Your task to perform on an android device: change your default location settings in chrome Image 0: 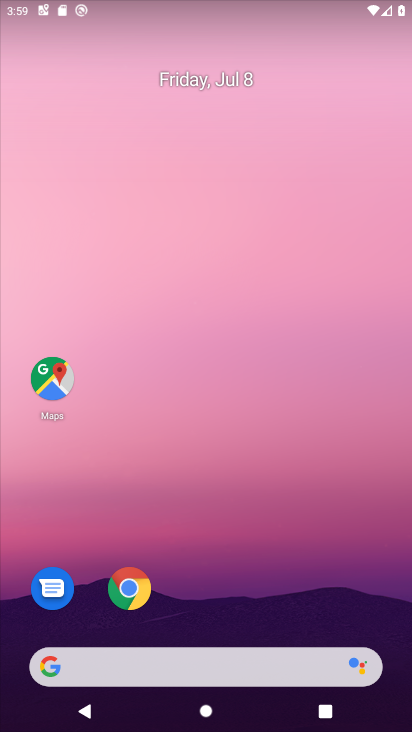
Step 0: drag from (181, 591) to (218, 193)
Your task to perform on an android device: change your default location settings in chrome Image 1: 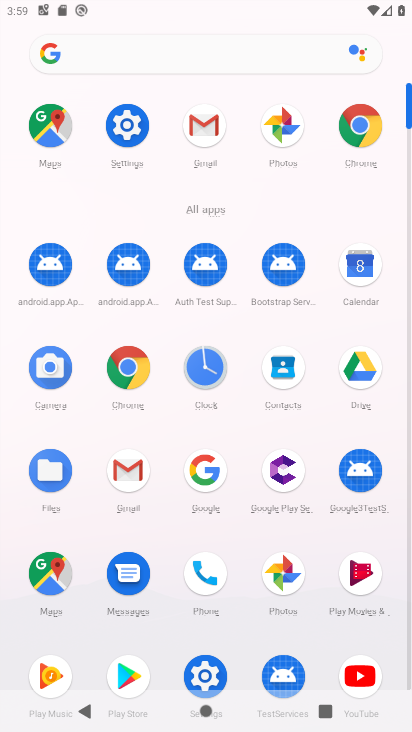
Step 1: click (136, 382)
Your task to perform on an android device: change your default location settings in chrome Image 2: 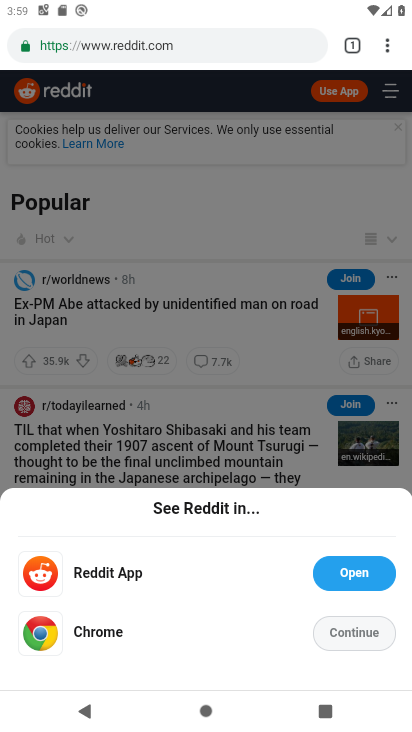
Step 2: click (392, 40)
Your task to perform on an android device: change your default location settings in chrome Image 3: 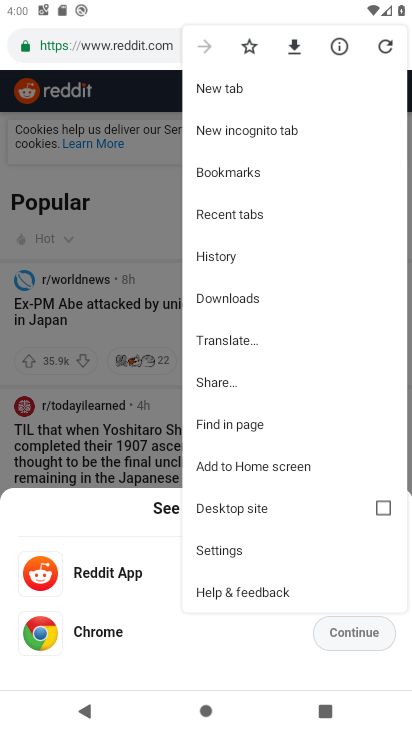
Step 3: click (217, 543)
Your task to perform on an android device: change your default location settings in chrome Image 4: 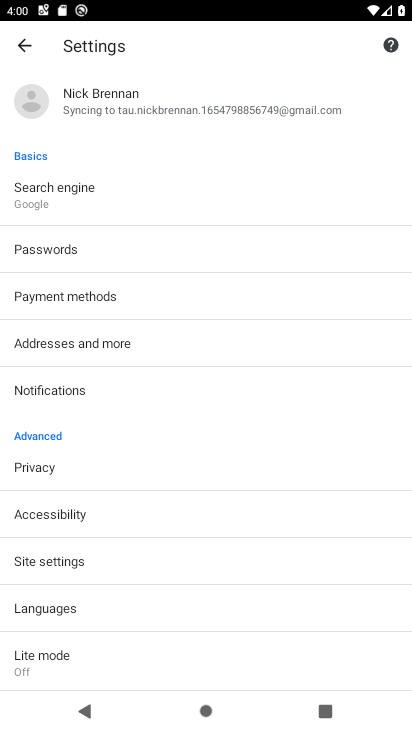
Step 4: click (78, 202)
Your task to perform on an android device: change your default location settings in chrome Image 5: 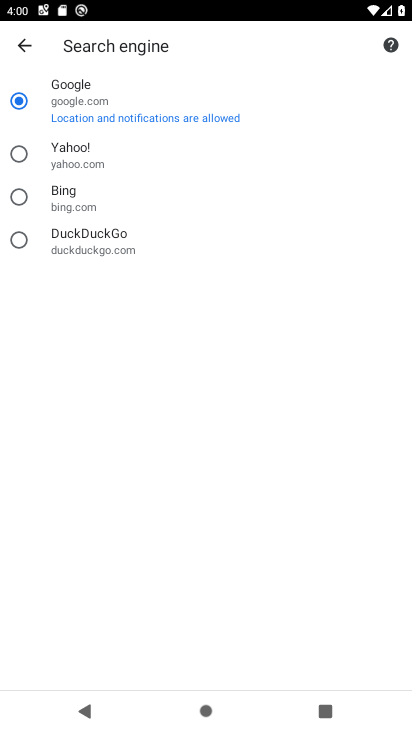
Step 5: click (98, 115)
Your task to perform on an android device: change your default location settings in chrome Image 6: 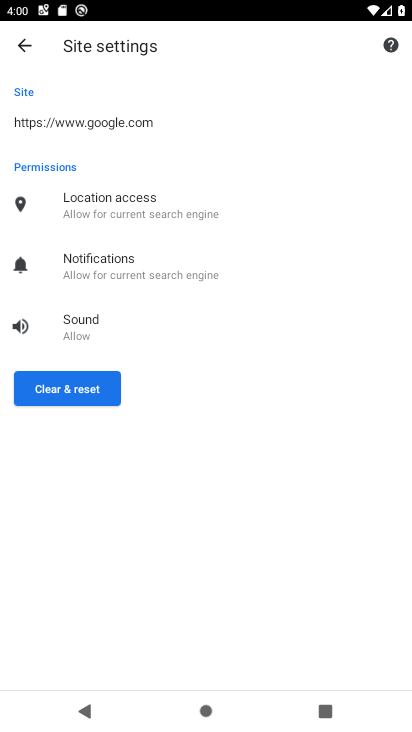
Step 6: click (102, 388)
Your task to perform on an android device: change your default location settings in chrome Image 7: 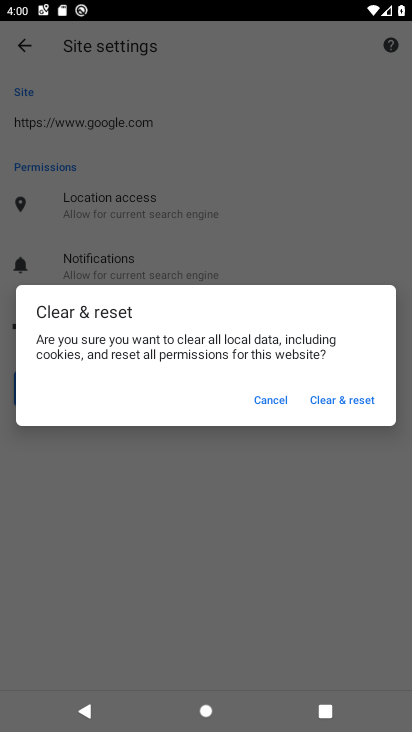
Step 7: click (344, 392)
Your task to perform on an android device: change your default location settings in chrome Image 8: 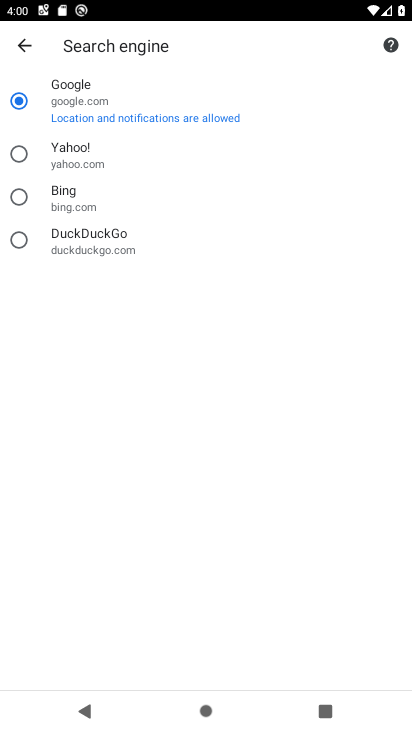
Step 8: task complete